Your task to perform on an android device: turn on showing notifications on the lock screen Image 0: 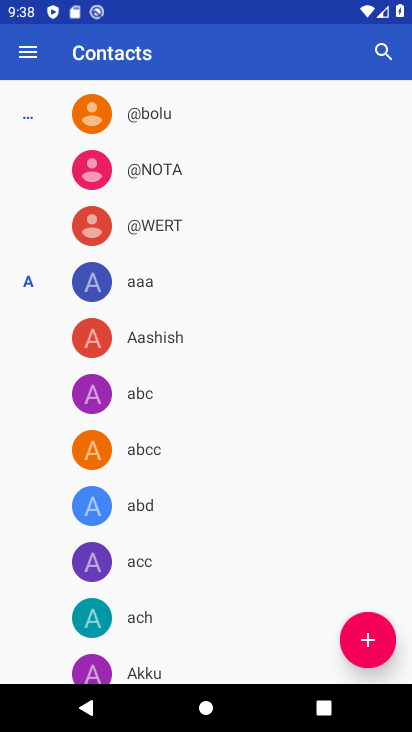
Step 0: press home button
Your task to perform on an android device: turn on showing notifications on the lock screen Image 1: 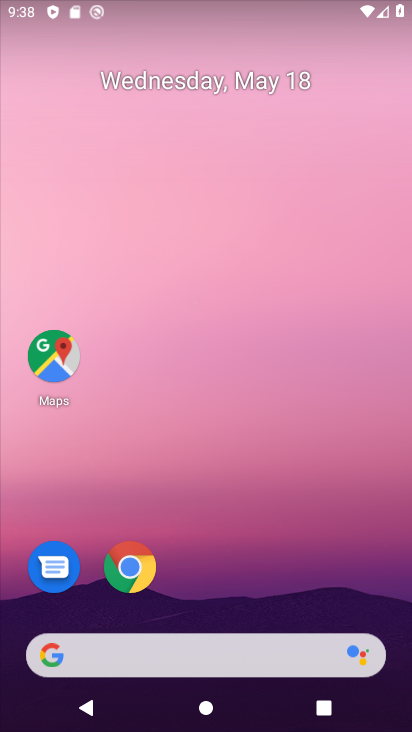
Step 1: drag from (218, 575) to (230, 38)
Your task to perform on an android device: turn on showing notifications on the lock screen Image 2: 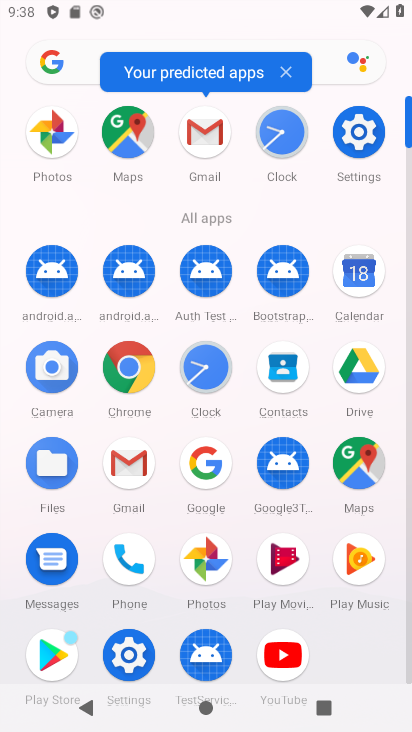
Step 2: click (356, 140)
Your task to perform on an android device: turn on showing notifications on the lock screen Image 3: 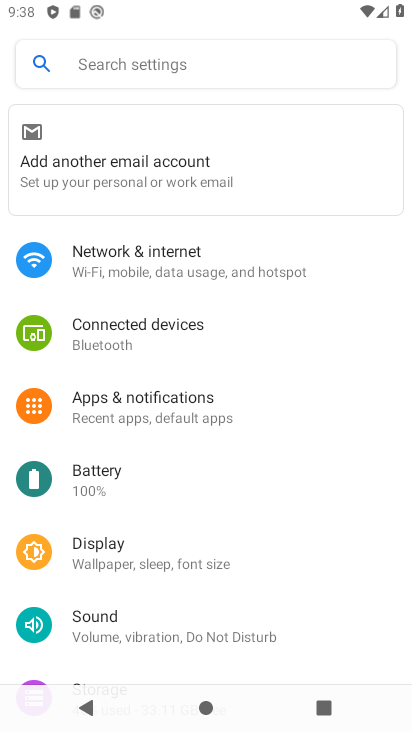
Step 3: click (121, 418)
Your task to perform on an android device: turn on showing notifications on the lock screen Image 4: 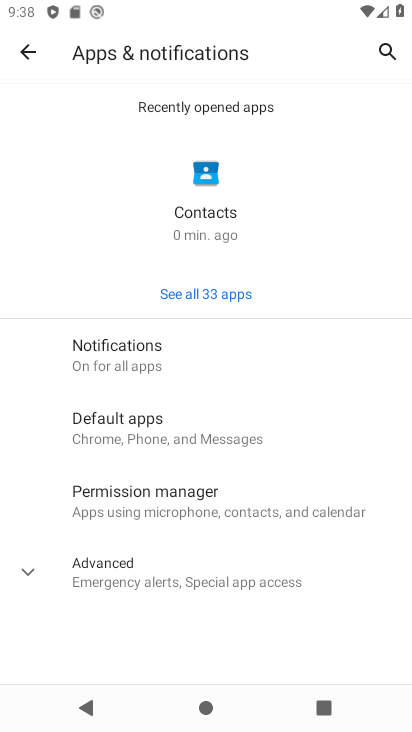
Step 4: click (114, 366)
Your task to perform on an android device: turn on showing notifications on the lock screen Image 5: 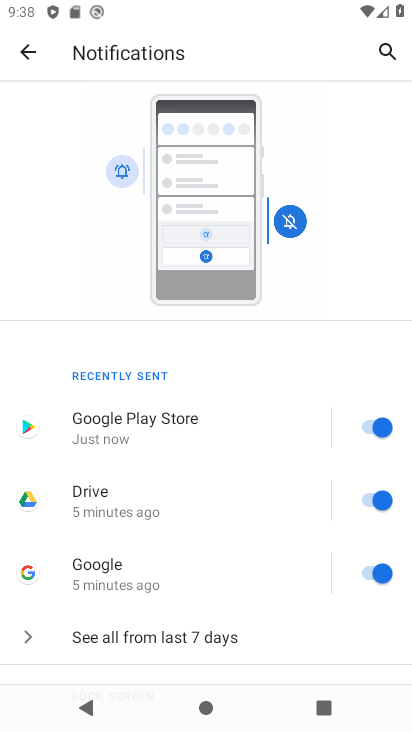
Step 5: drag from (153, 635) to (109, 212)
Your task to perform on an android device: turn on showing notifications on the lock screen Image 6: 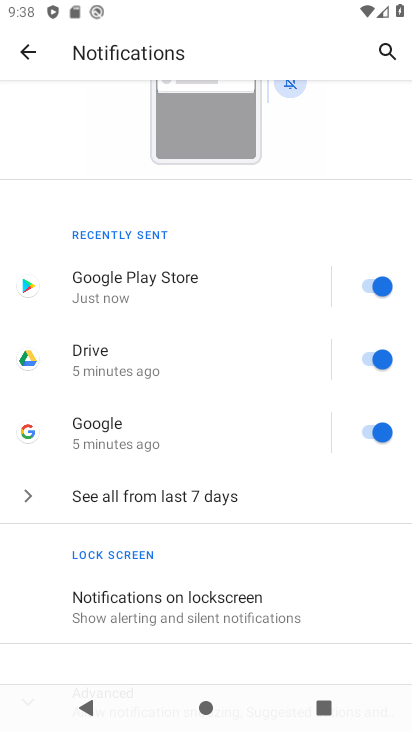
Step 6: click (134, 613)
Your task to perform on an android device: turn on showing notifications on the lock screen Image 7: 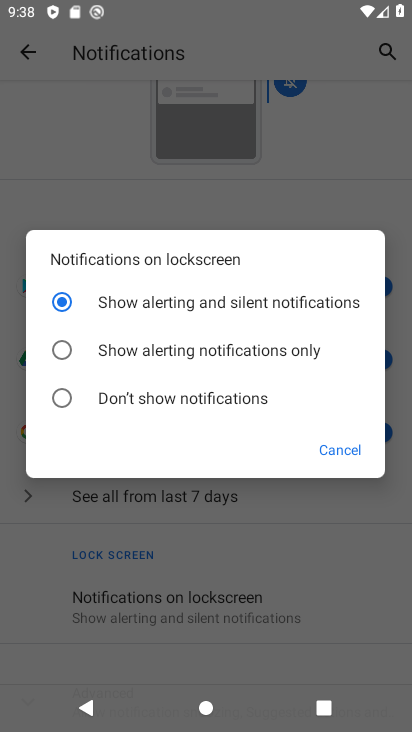
Step 7: task complete